Your task to perform on an android device: remove spam from my inbox in the gmail app Image 0: 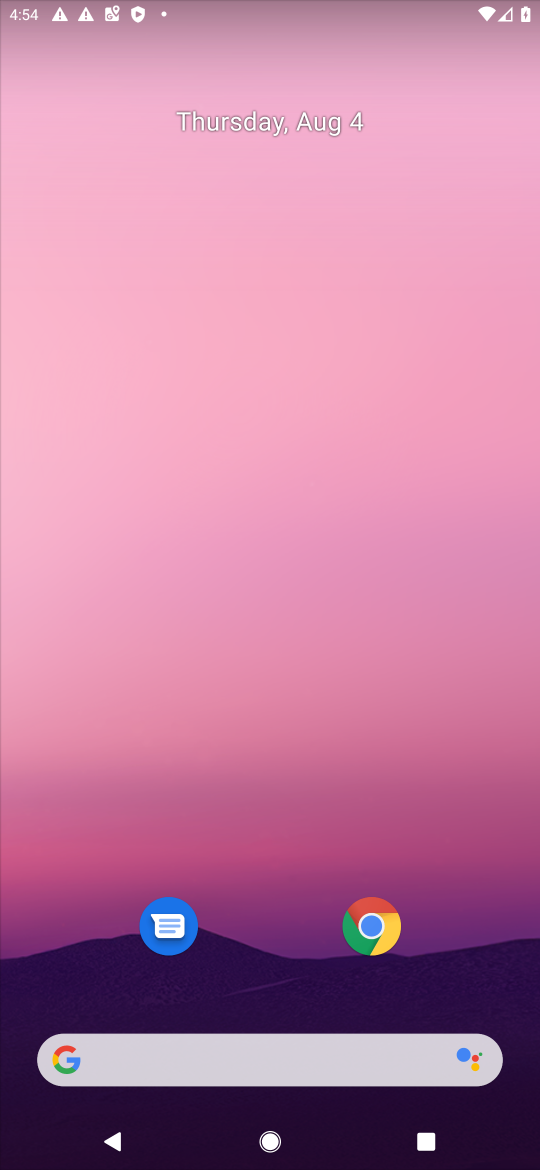
Step 0: press home button
Your task to perform on an android device: remove spam from my inbox in the gmail app Image 1: 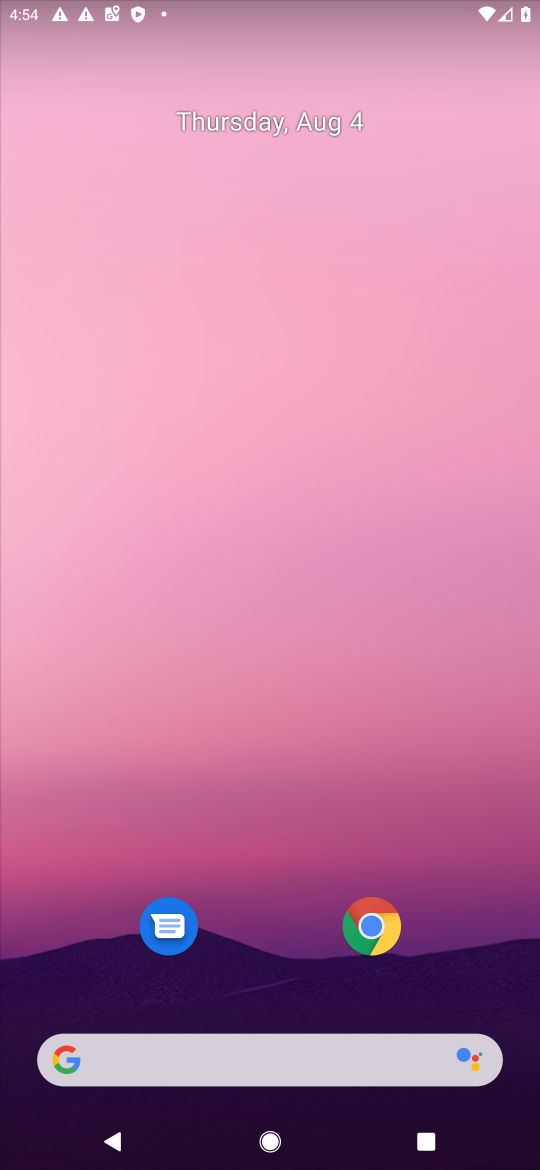
Step 1: drag from (307, 949) to (350, 223)
Your task to perform on an android device: remove spam from my inbox in the gmail app Image 2: 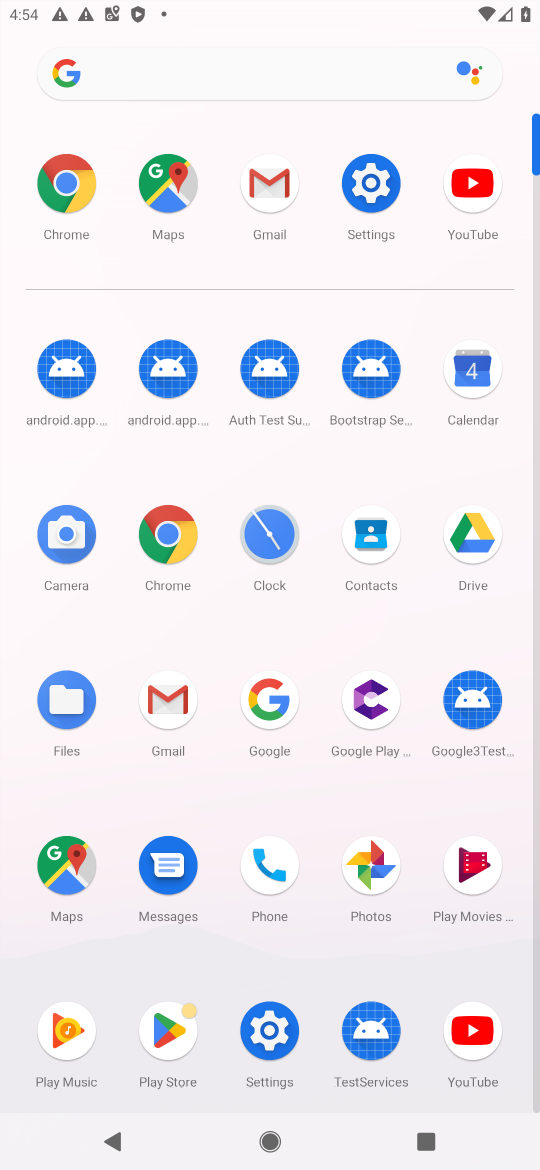
Step 2: click (263, 190)
Your task to perform on an android device: remove spam from my inbox in the gmail app Image 3: 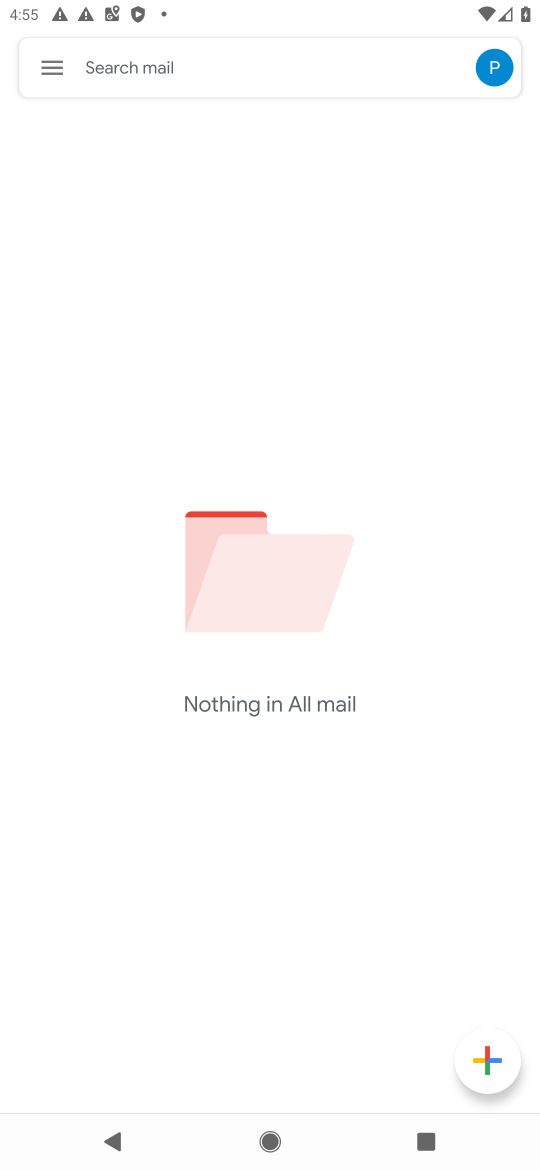
Step 3: click (74, 69)
Your task to perform on an android device: remove spam from my inbox in the gmail app Image 4: 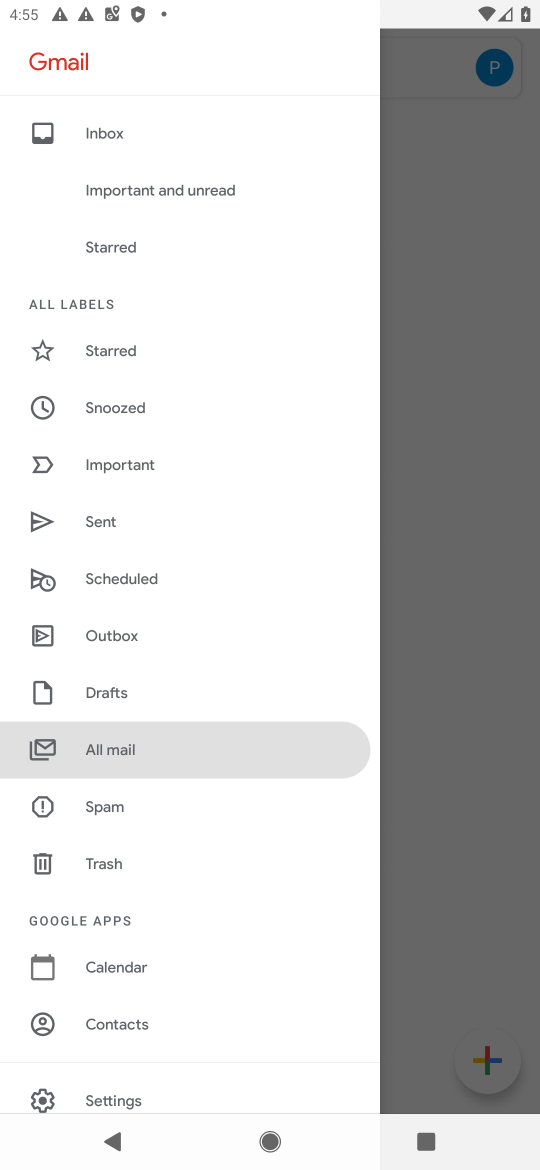
Step 4: click (103, 807)
Your task to perform on an android device: remove spam from my inbox in the gmail app Image 5: 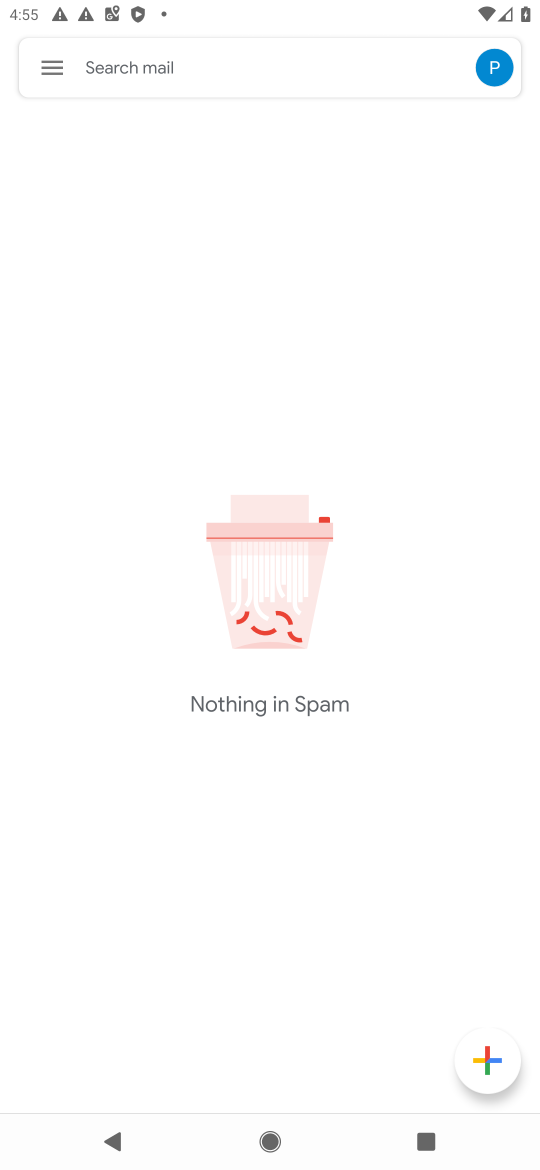
Step 5: task complete